Your task to perform on an android device: Search for the new Nintendo switch on Walmart. Image 0: 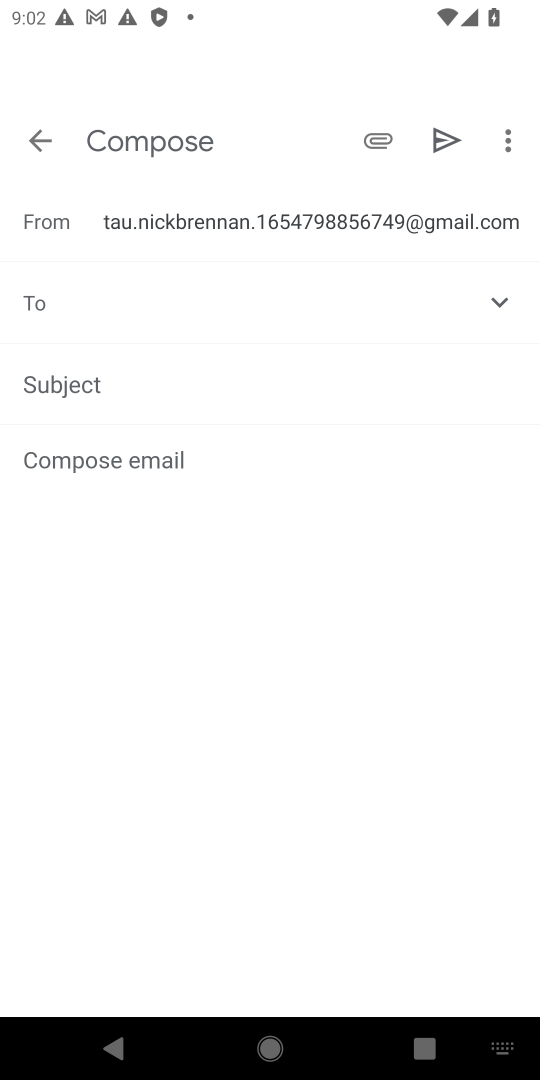
Step 0: press home button
Your task to perform on an android device: Search for the new Nintendo switch on Walmart. Image 1: 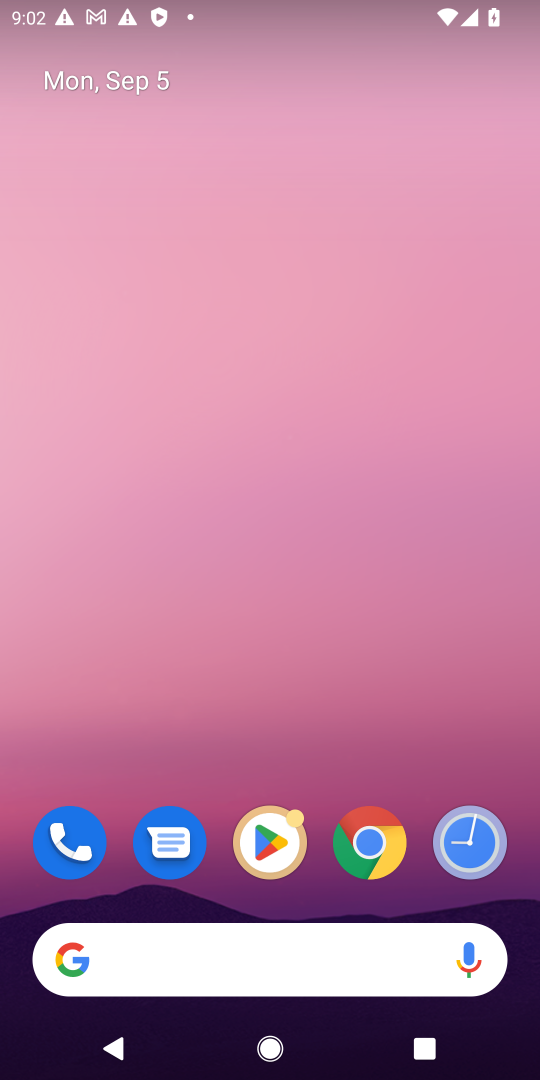
Step 1: click (386, 845)
Your task to perform on an android device: Search for the new Nintendo switch on Walmart. Image 2: 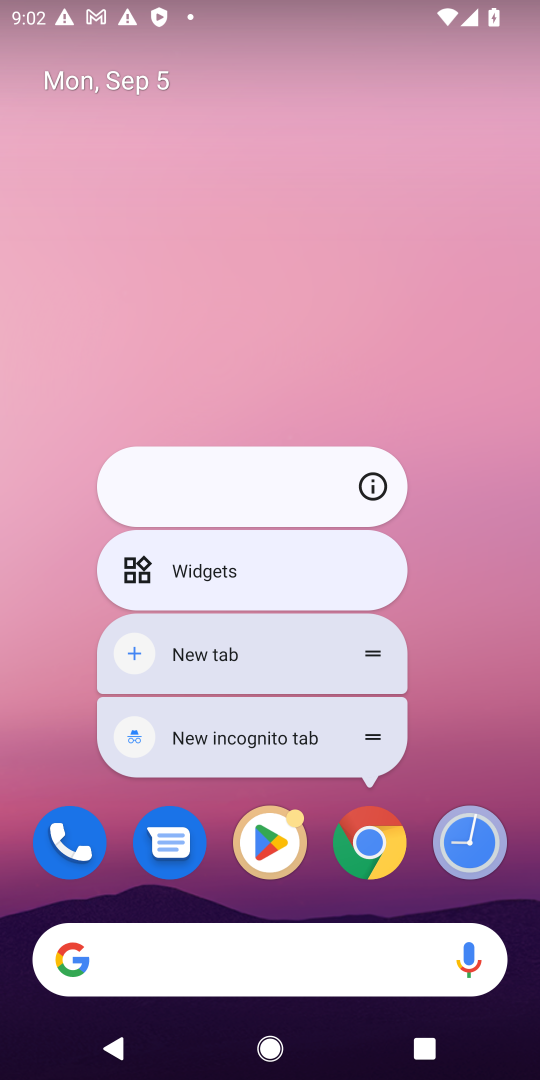
Step 2: click (383, 847)
Your task to perform on an android device: Search for the new Nintendo switch on Walmart. Image 3: 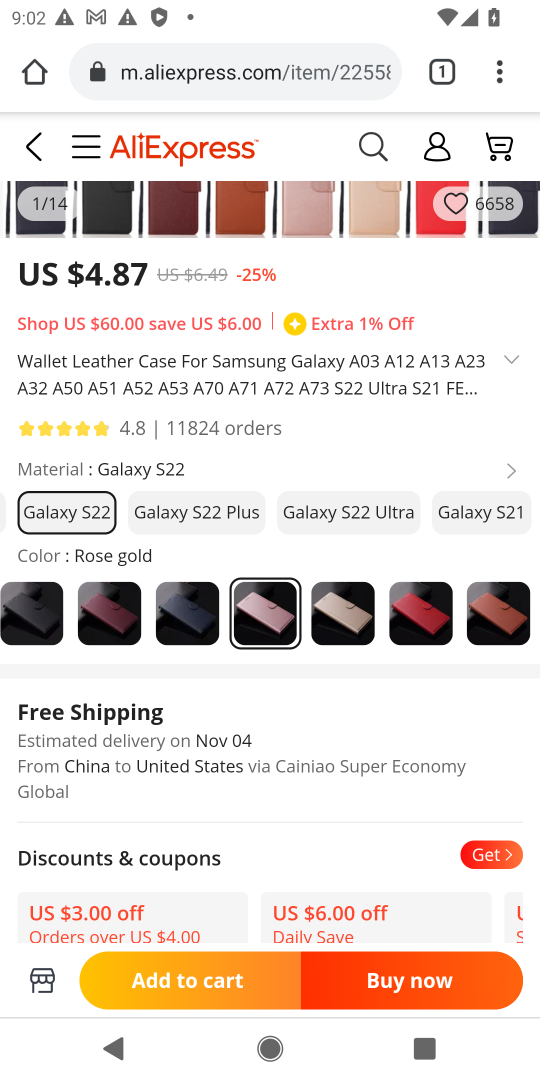
Step 3: click (338, 91)
Your task to perform on an android device: Search for the new Nintendo switch on Walmart. Image 4: 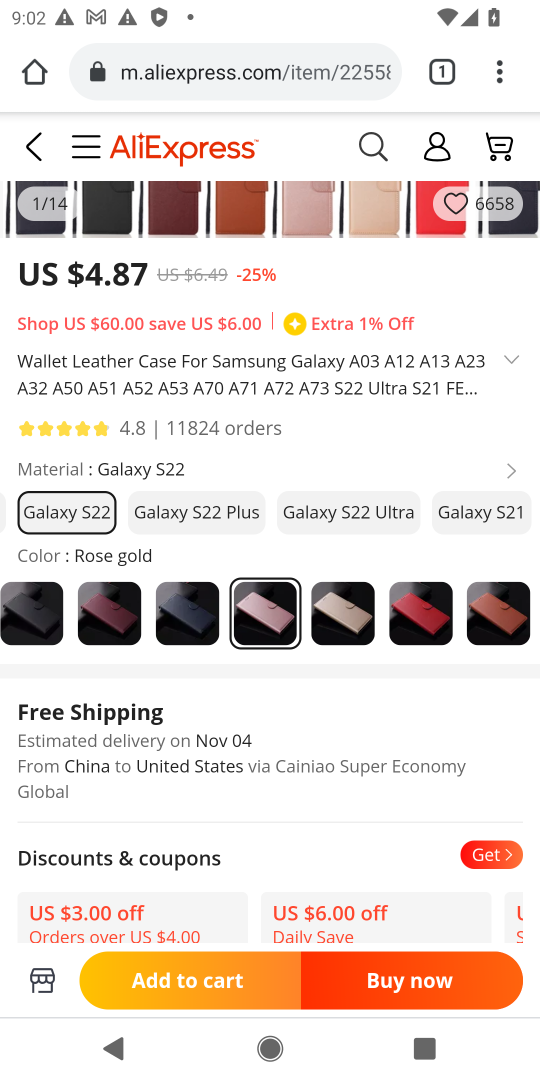
Step 4: click (358, 63)
Your task to perform on an android device: Search for the new Nintendo switch on Walmart. Image 5: 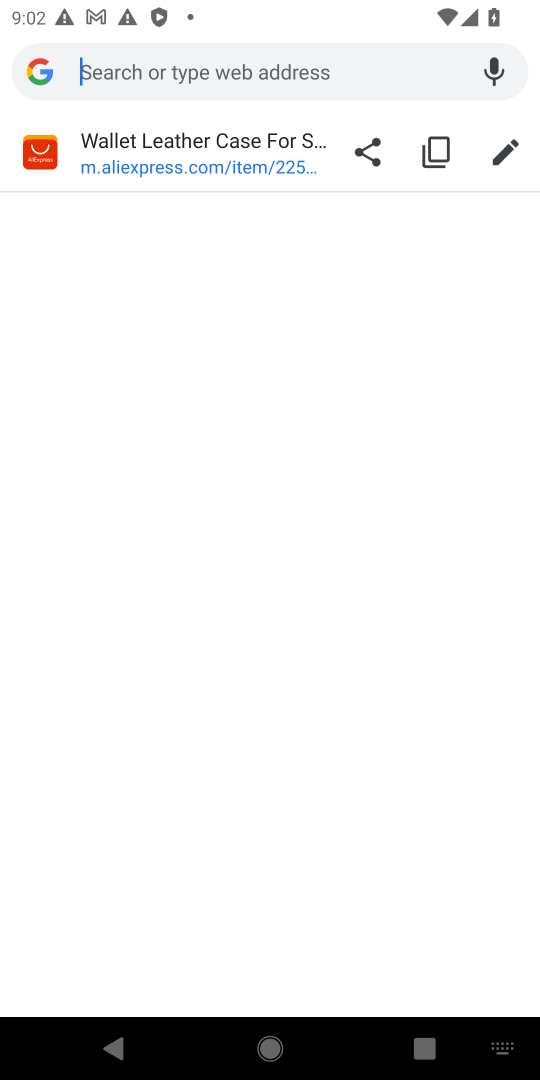
Step 5: type "walmart"
Your task to perform on an android device: Search for the new Nintendo switch on Walmart. Image 6: 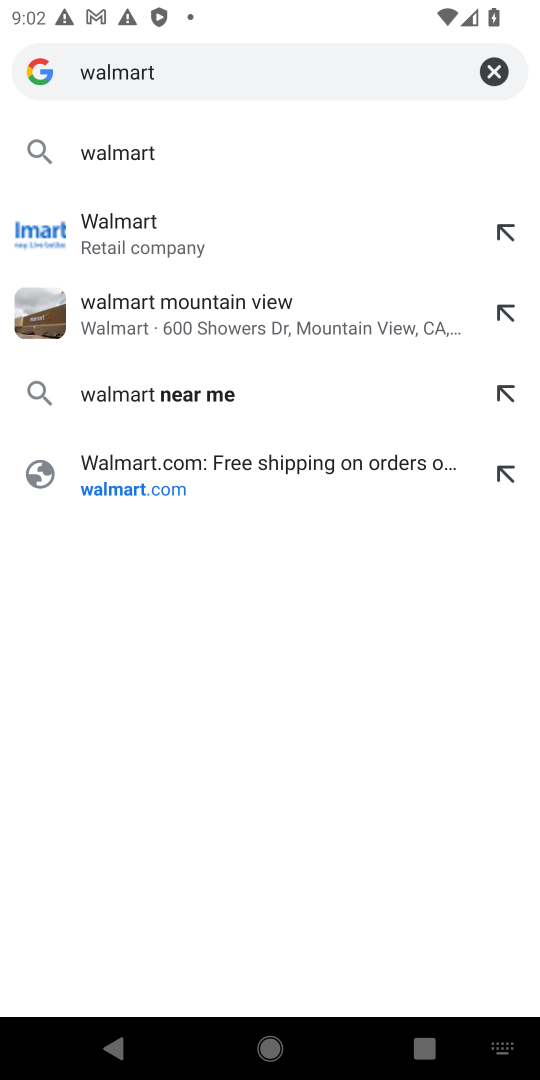
Step 6: click (111, 208)
Your task to perform on an android device: Search for the new Nintendo switch on Walmart. Image 7: 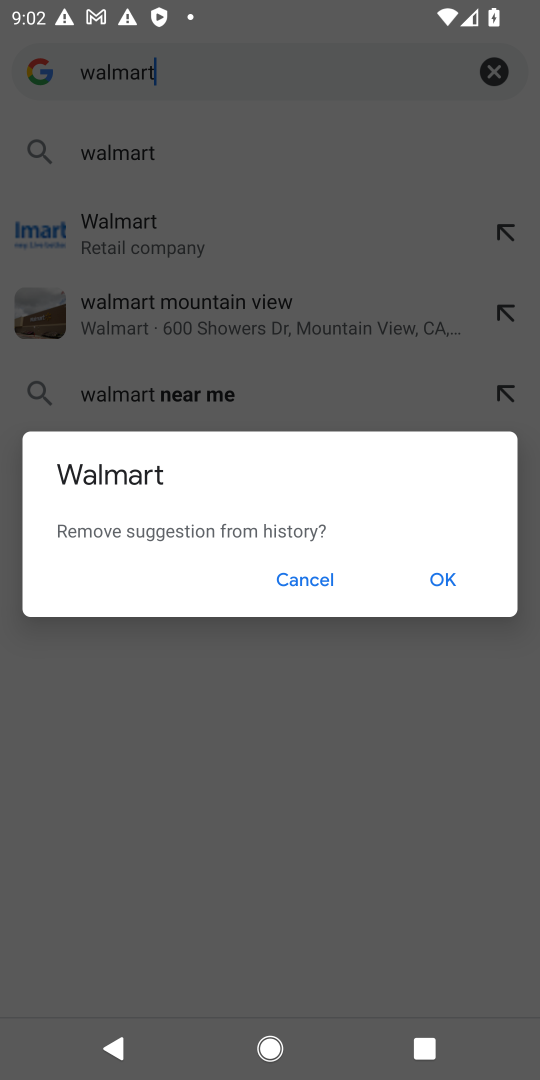
Step 7: click (435, 582)
Your task to perform on an android device: Search for the new Nintendo switch on Walmart. Image 8: 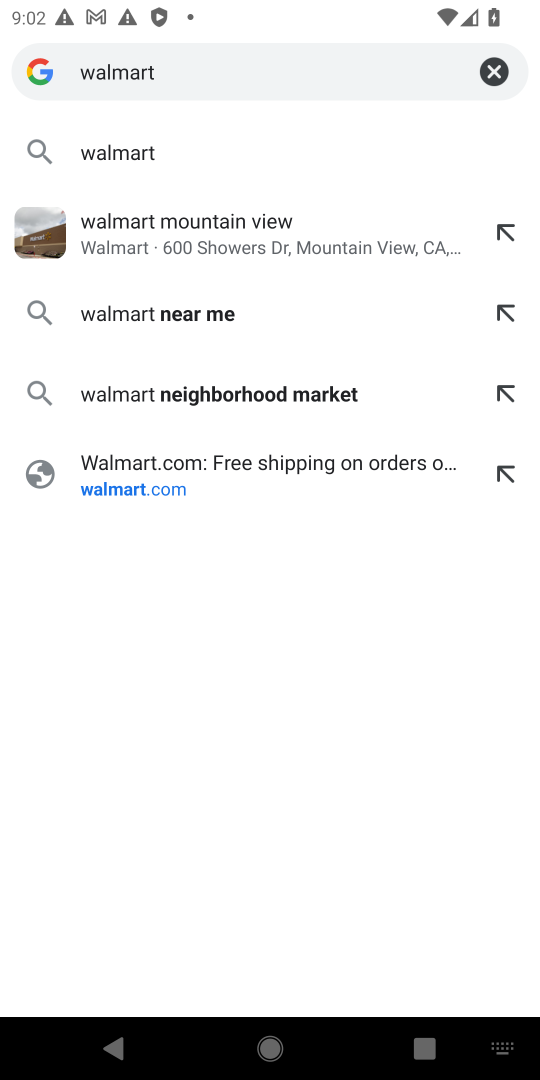
Step 8: click (211, 474)
Your task to perform on an android device: Search for the new Nintendo switch on Walmart. Image 9: 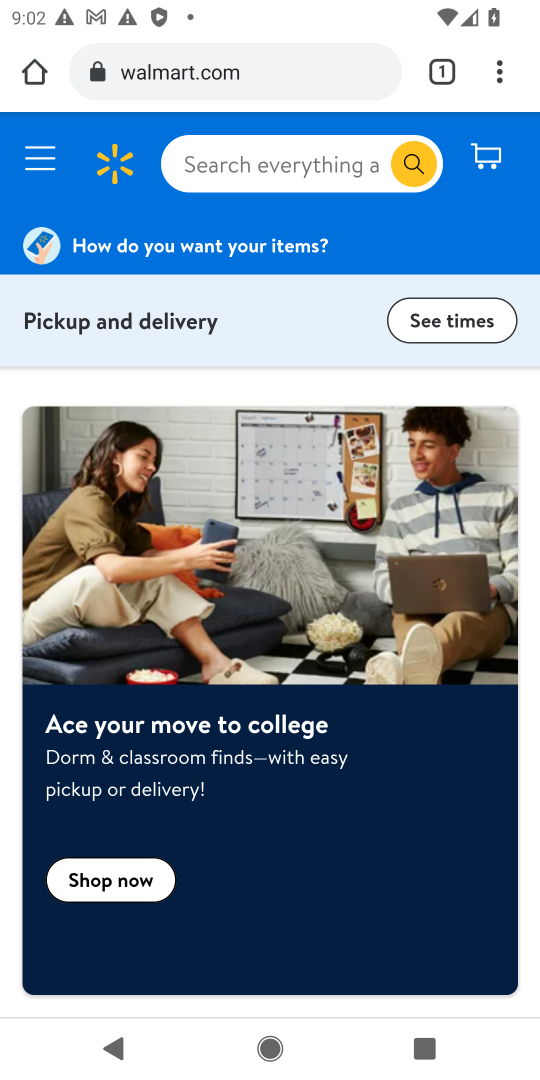
Step 9: click (285, 164)
Your task to perform on an android device: Search for the new Nintendo switch on Walmart. Image 10: 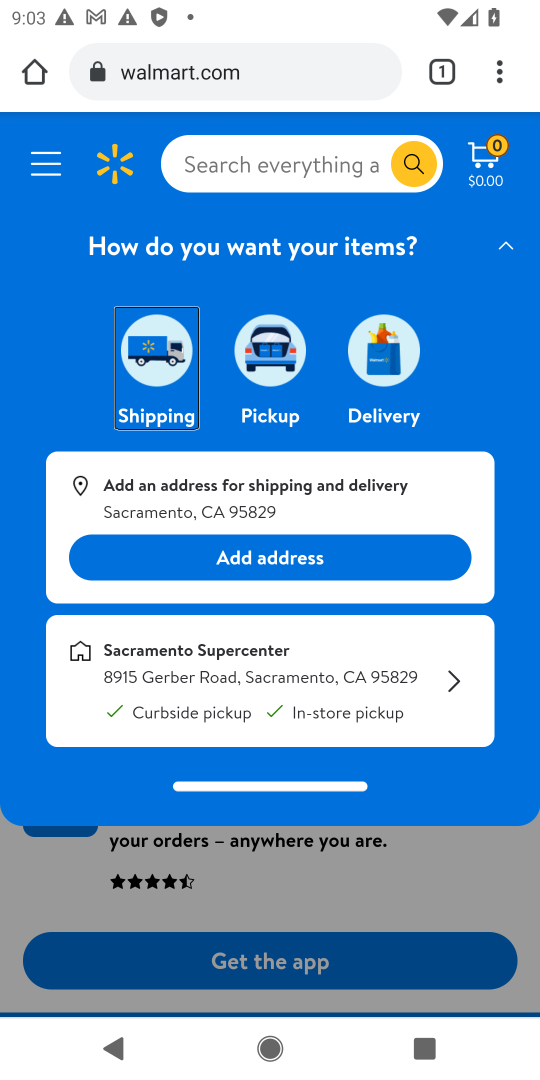
Step 10: type "nintendo "
Your task to perform on an android device: Search for the new Nintendo switch on Walmart. Image 11: 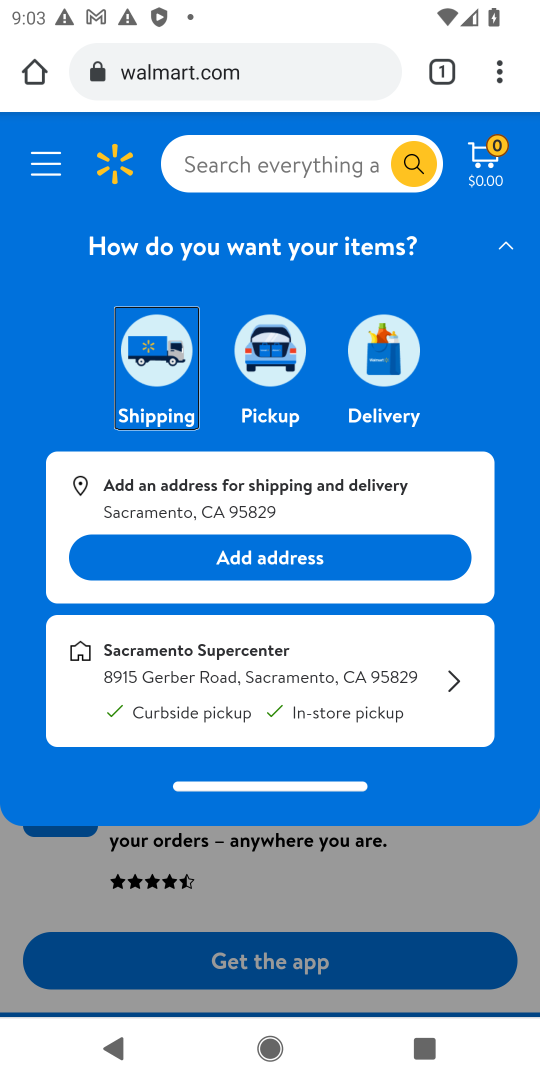
Step 11: click (266, 162)
Your task to perform on an android device: Search for the new Nintendo switch on Walmart. Image 12: 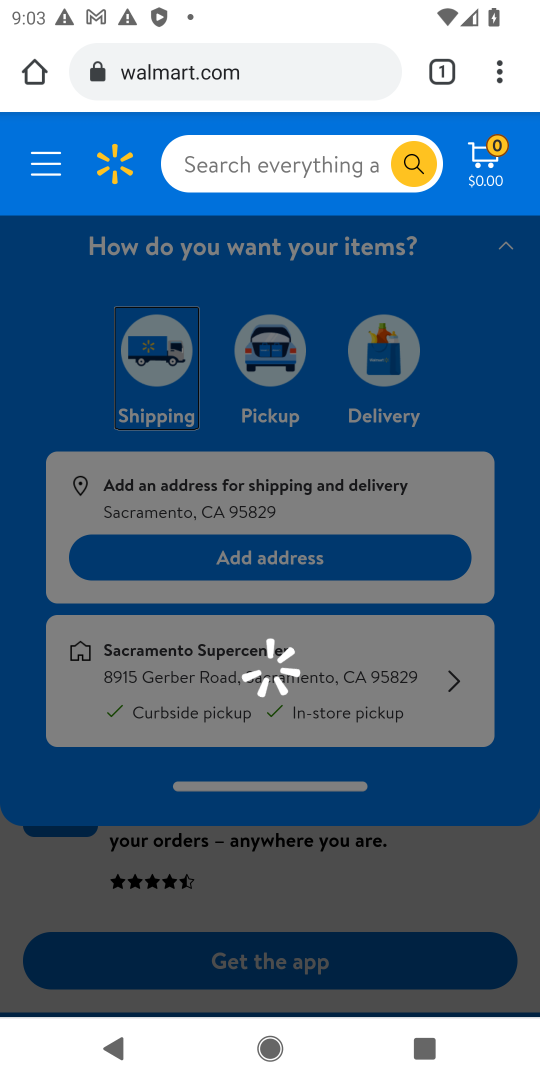
Step 12: click (244, 163)
Your task to perform on an android device: Search for the new Nintendo switch on Walmart. Image 13: 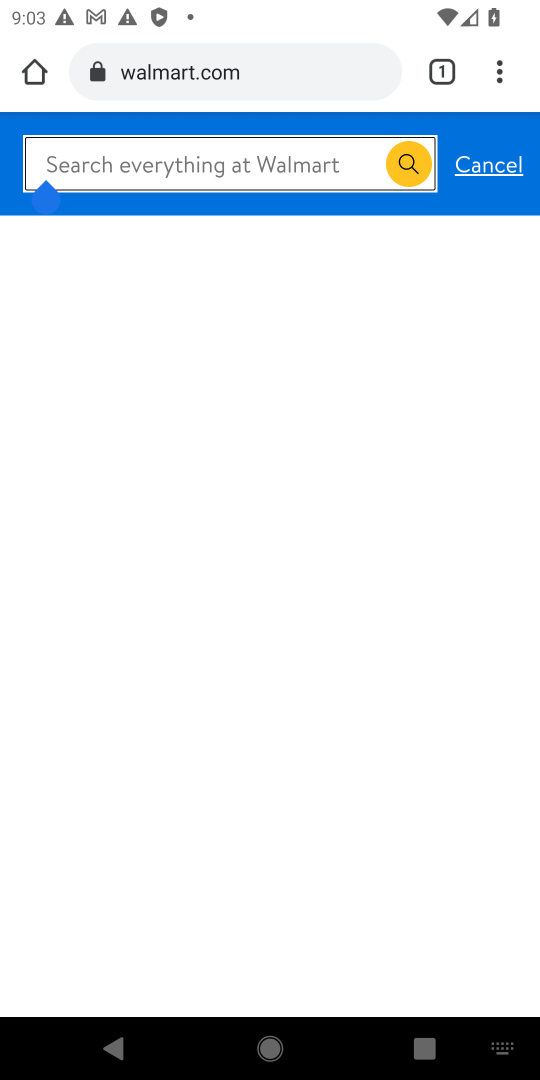
Step 13: type "nintendo switch"
Your task to perform on an android device: Search for the new Nintendo switch on Walmart. Image 14: 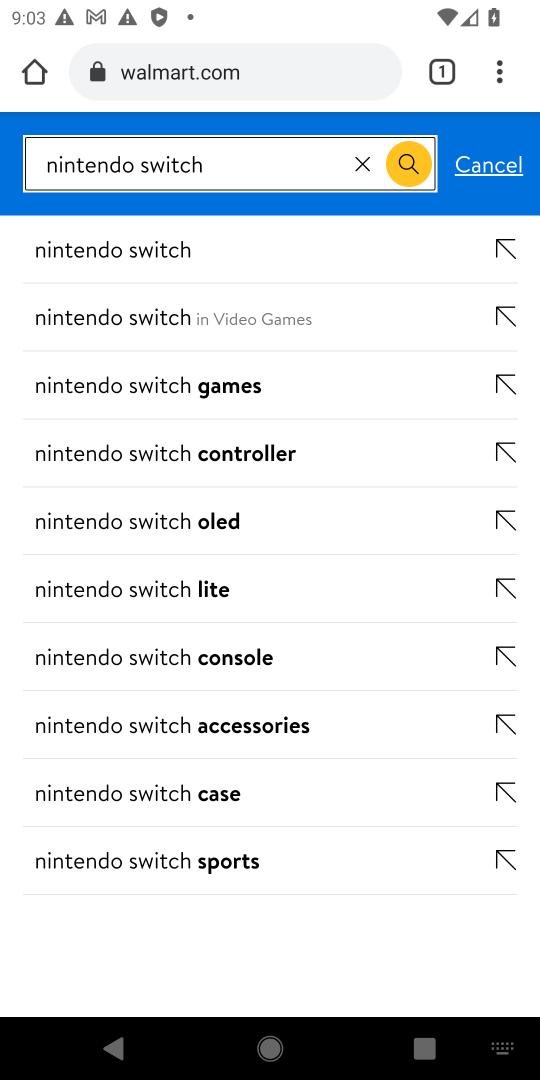
Step 14: click (107, 259)
Your task to perform on an android device: Search for the new Nintendo switch on Walmart. Image 15: 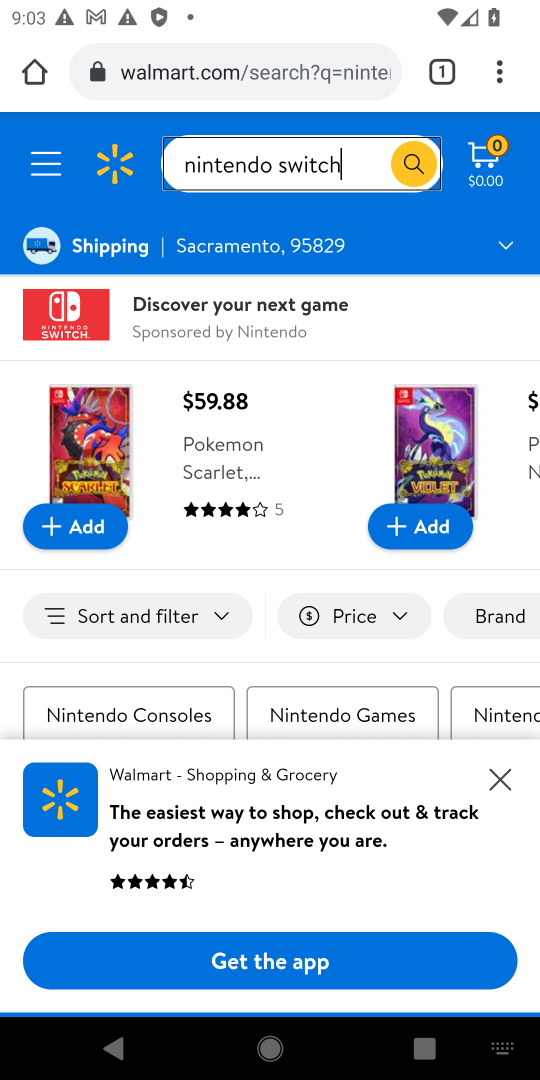
Step 15: click (501, 781)
Your task to perform on an android device: Search for the new Nintendo switch on Walmart. Image 16: 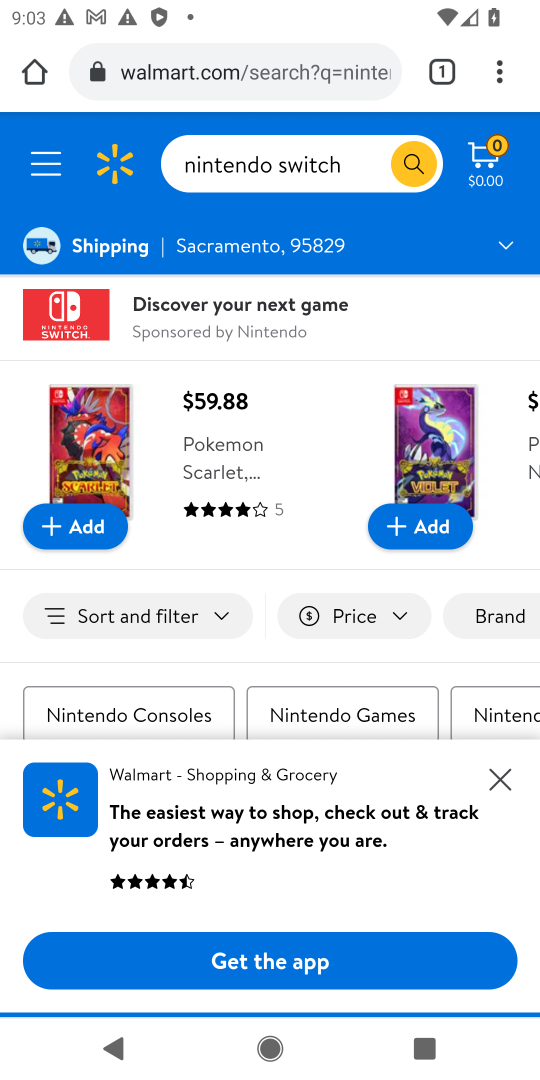
Step 16: click (499, 780)
Your task to perform on an android device: Search for the new Nintendo switch on Walmart. Image 17: 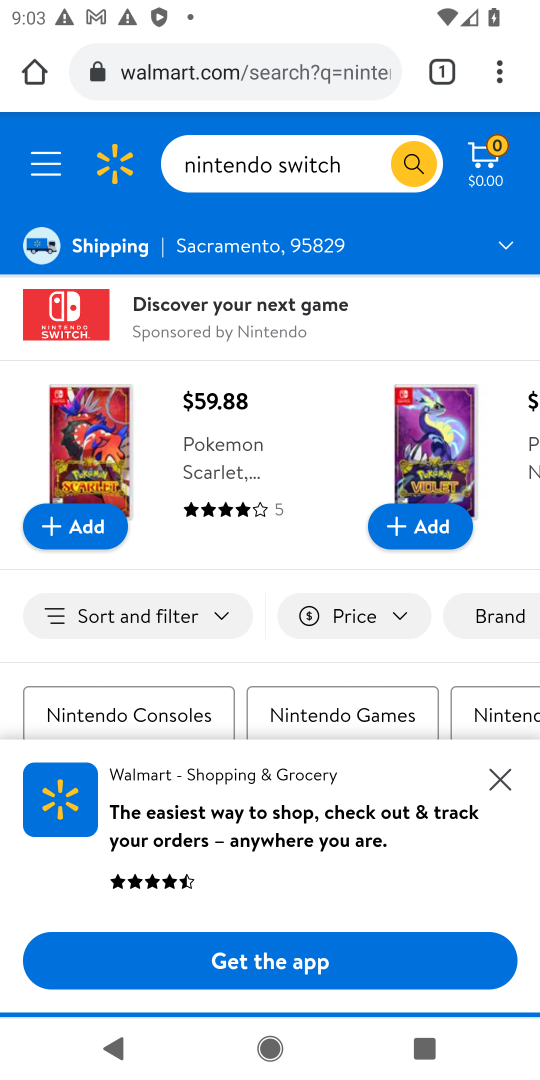
Step 17: click (299, 327)
Your task to perform on an android device: Search for the new Nintendo switch on Walmart. Image 18: 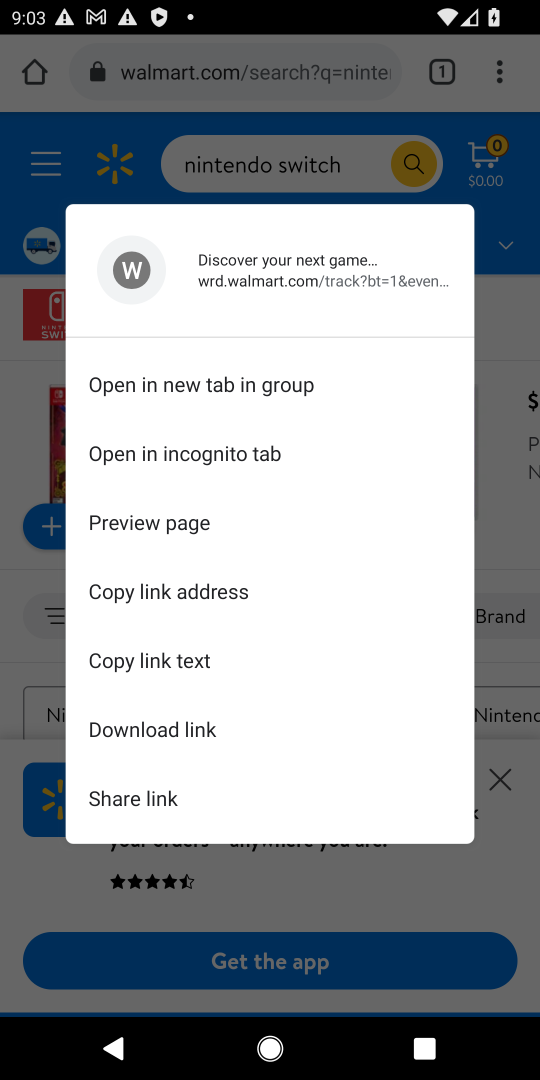
Step 18: click (523, 533)
Your task to perform on an android device: Search for the new Nintendo switch on Walmart. Image 19: 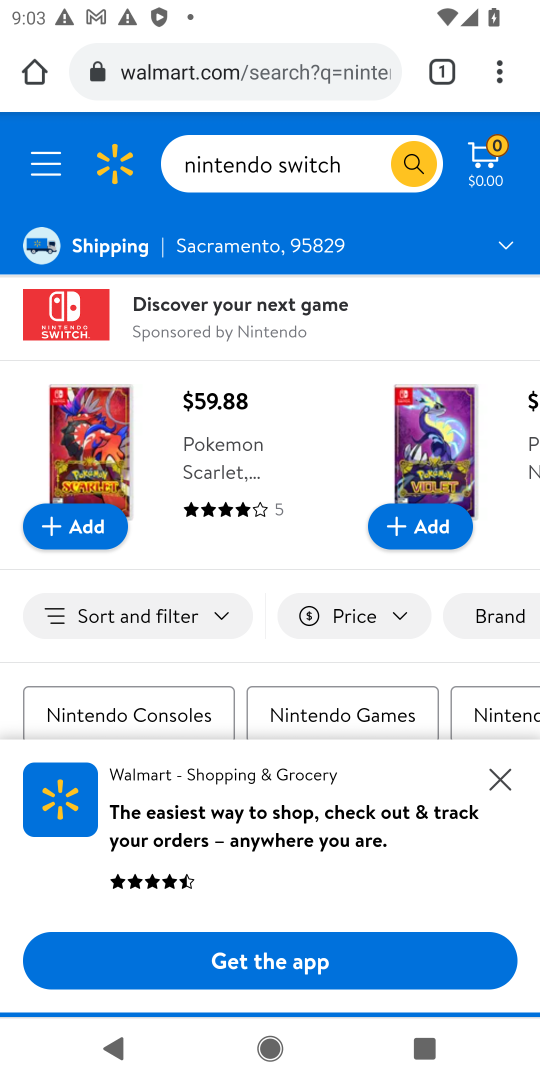
Step 19: click (494, 779)
Your task to perform on an android device: Search for the new Nintendo switch on Walmart. Image 20: 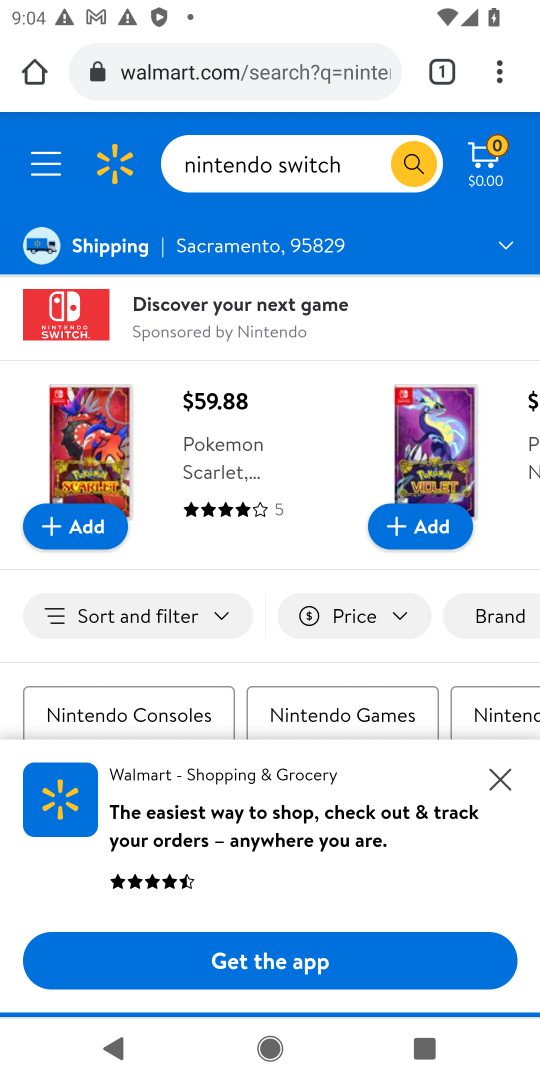
Step 20: click (501, 788)
Your task to perform on an android device: Search for the new Nintendo switch on Walmart. Image 21: 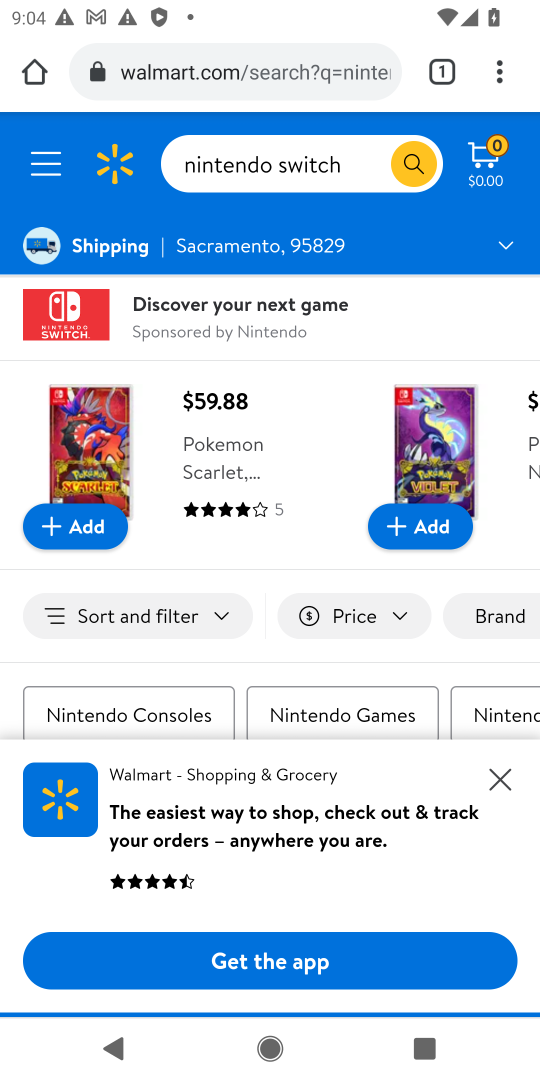
Step 21: click (499, 776)
Your task to perform on an android device: Search for the new Nintendo switch on Walmart. Image 22: 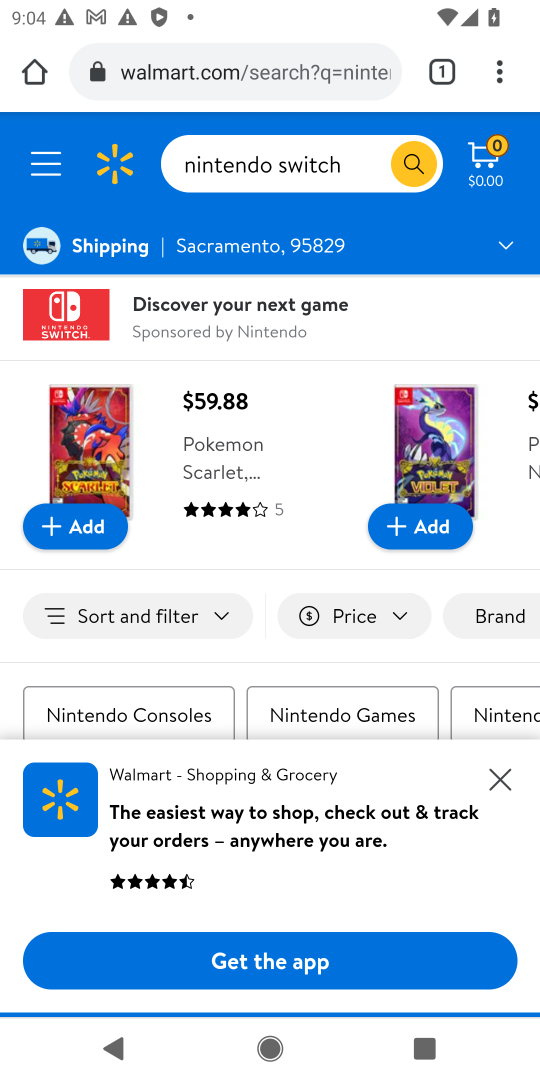
Step 22: click (497, 778)
Your task to perform on an android device: Search for the new Nintendo switch on Walmart. Image 23: 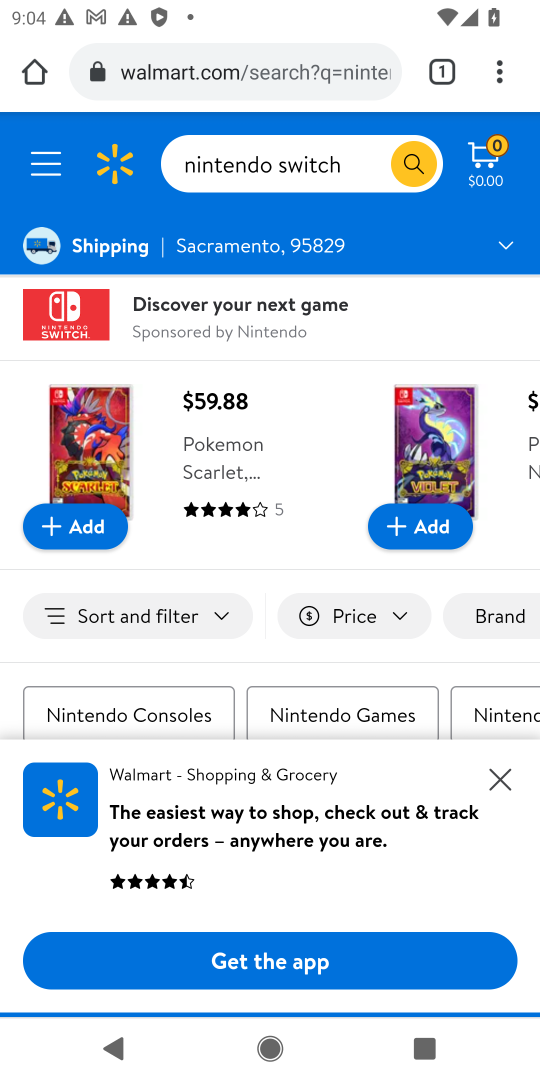
Step 23: click (498, 778)
Your task to perform on an android device: Search for the new Nintendo switch on Walmart. Image 24: 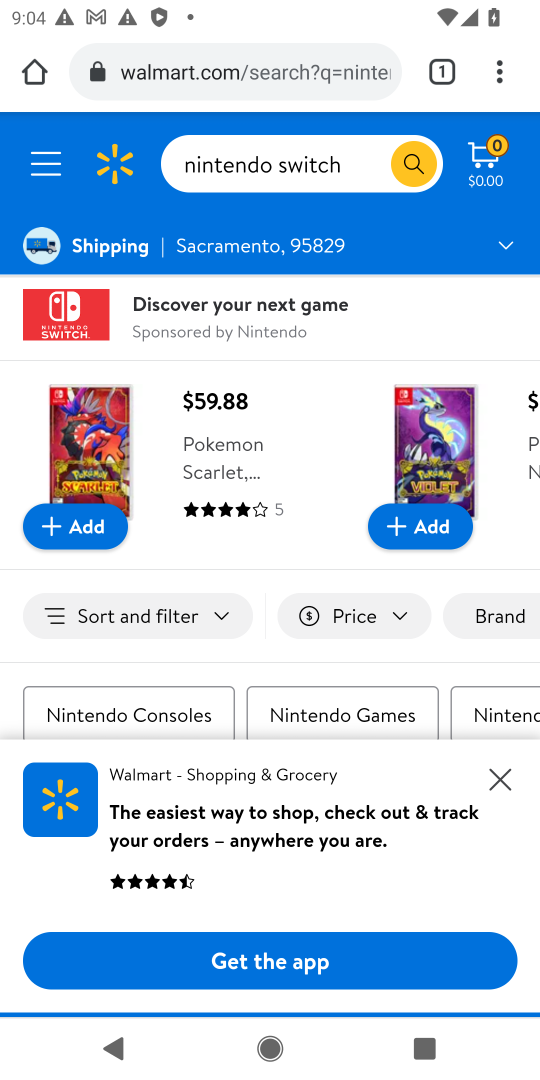
Step 24: click (499, 776)
Your task to perform on an android device: Search for the new Nintendo switch on Walmart. Image 25: 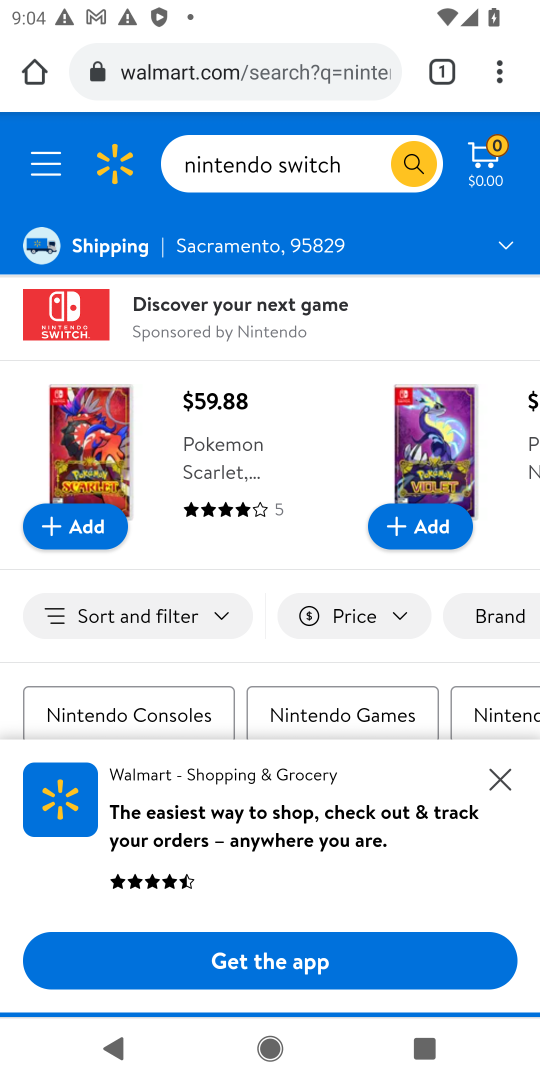
Step 25: task complete